Your task to perform on an android device: read, delete, or share a saved page in the chrome app Image 0: 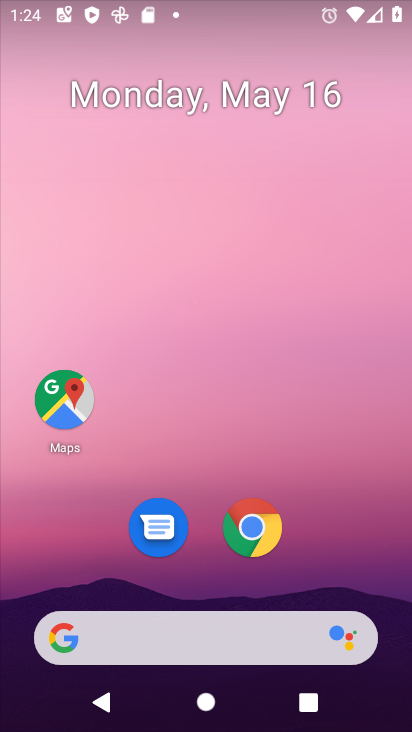
Step 0: click (267, 512)
Your task to perform on an android device: read, delete, or share a saved page in the chrome app Image 1: 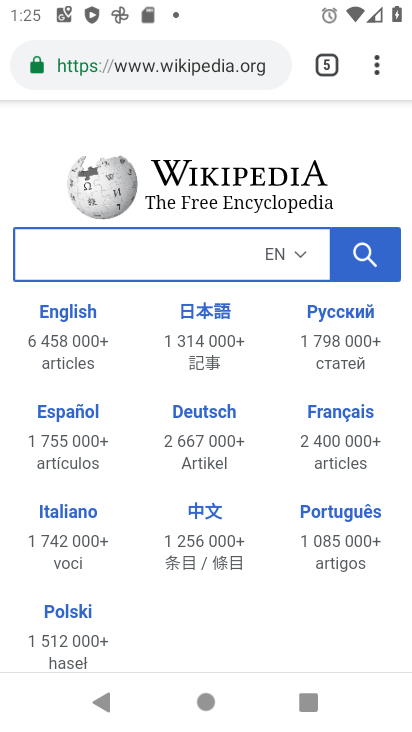
Step 1: click (373, 65)
Your task to perform on an android device: read, delete, or share a saved page in the chrome app Image 2: 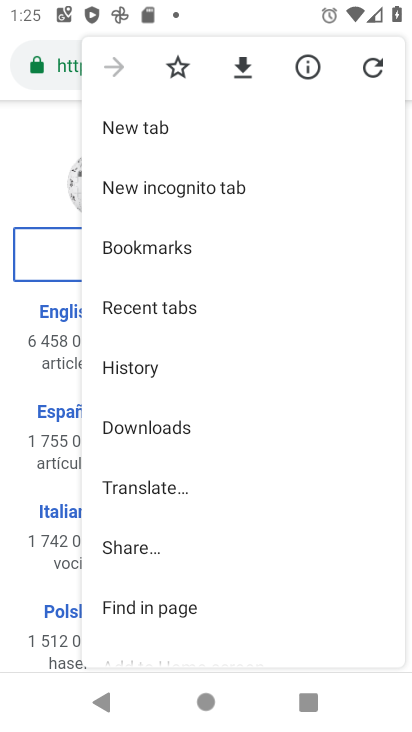
Step 2: click (180, 423)
Your task to perform on an android device: read, delete, or share a saved page in the chrome app Image 3: 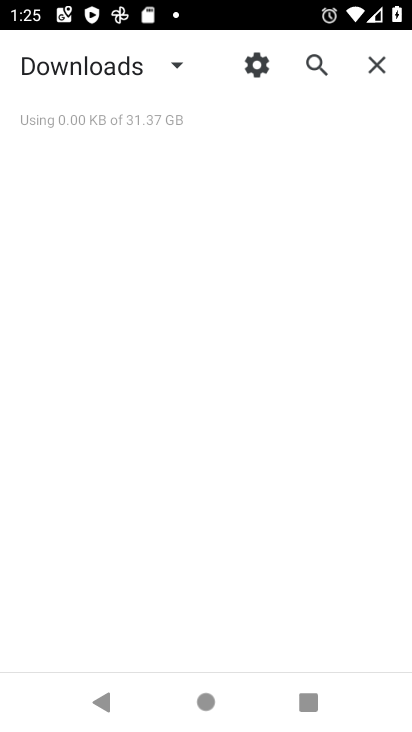
Step 3: task complete